Your task to perform on an android device: What is the news today? Image 0: 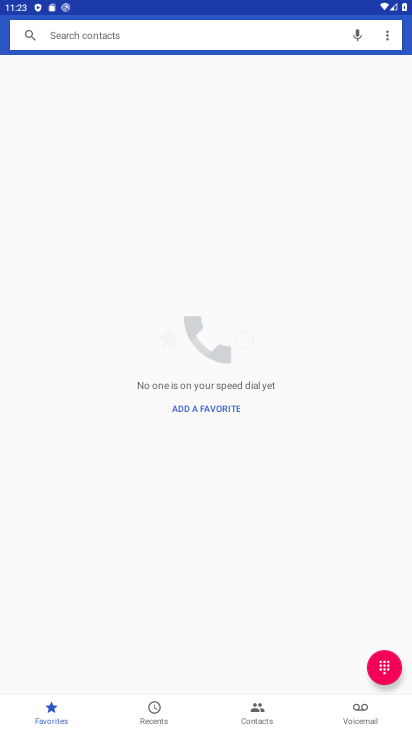
Step 0: press home button
Your task to perform on an android device: What is the news today? Image 1: 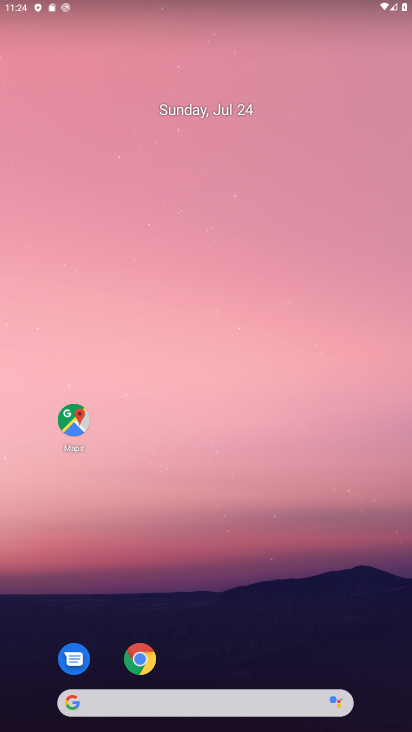
Step 1: click (90, 702)
Your task to perform on an android device: What is the news today? Image 2: 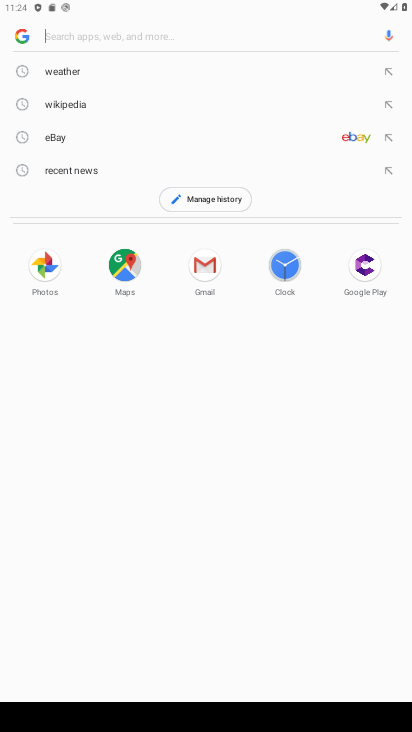
Step 2: type "What is the news today?"
Your task to perform on an android device: What is the news today? Image 3: 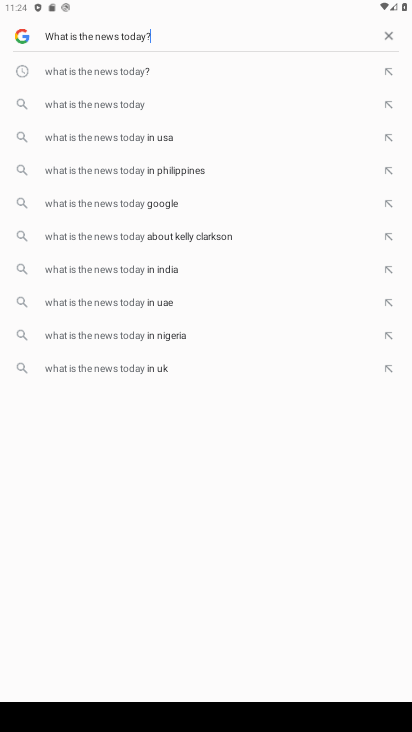
Step 3: type ""
Your task to perform on an android device: What is the news today? Image 4: 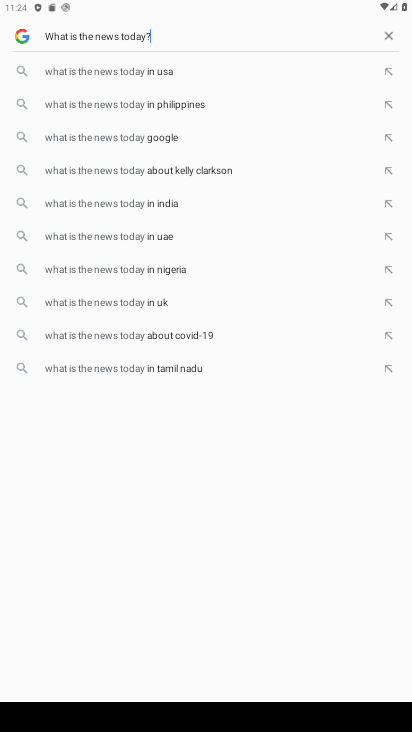
Step 4: type ""
Your task to perform on an android device: What is the news today? Image 5: 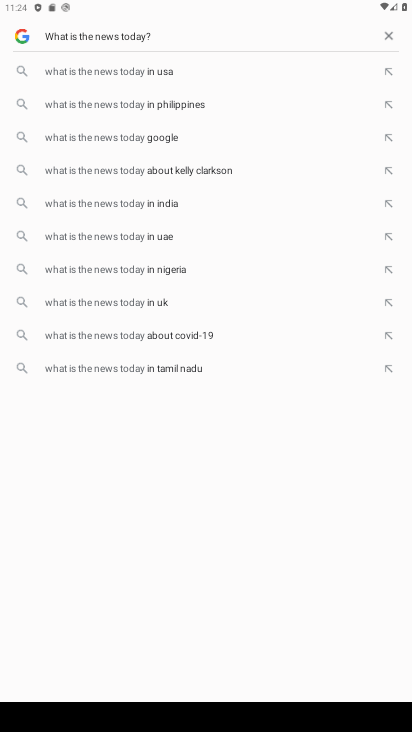
Step 5: type ""
Your task to perform on an android device: What is the news today? Image 6: 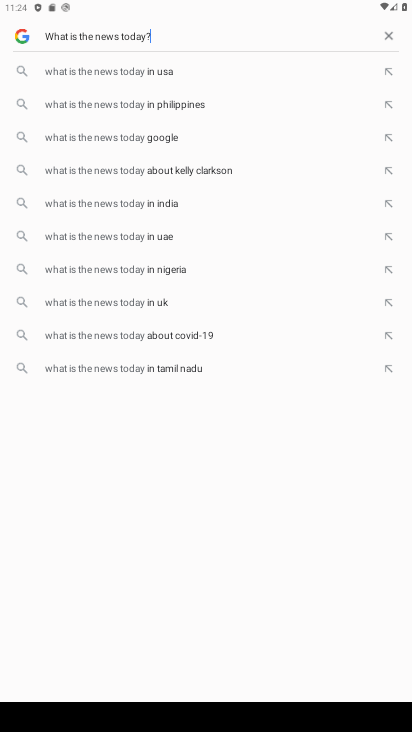
Step 6: task complete